Your task to perform on an android device: Open display settings Image 0: 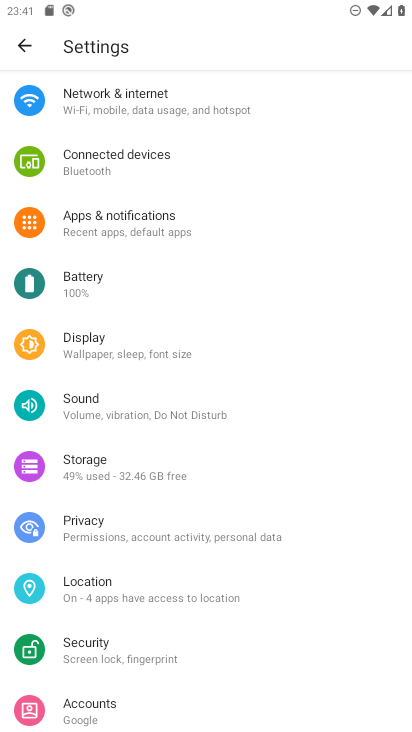
Step 0: click (127, 344)
Your task to perform on an android device: Open display settings Image 1: 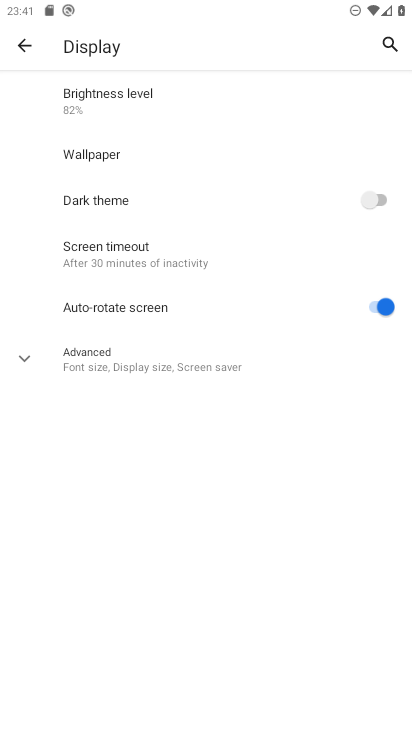
Step 1: task complete